Your task to perform on an android device: turn off smart reply in the gmail app Image 0: 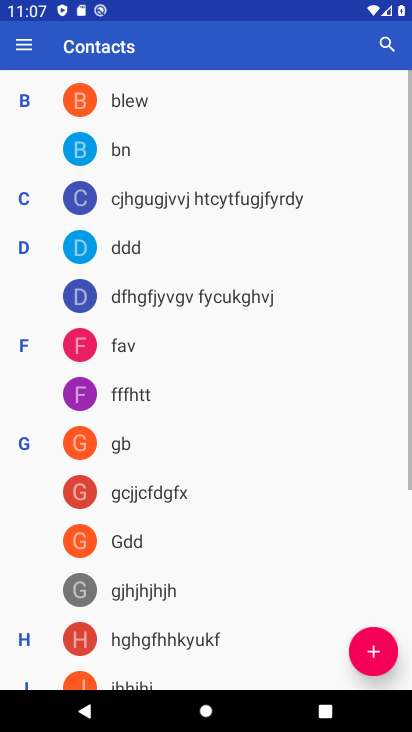
Step 0: drag from (373, 603) to (284, 167)
Your task to perform on an android device: turn off smart reply in the gmail app Image 1: 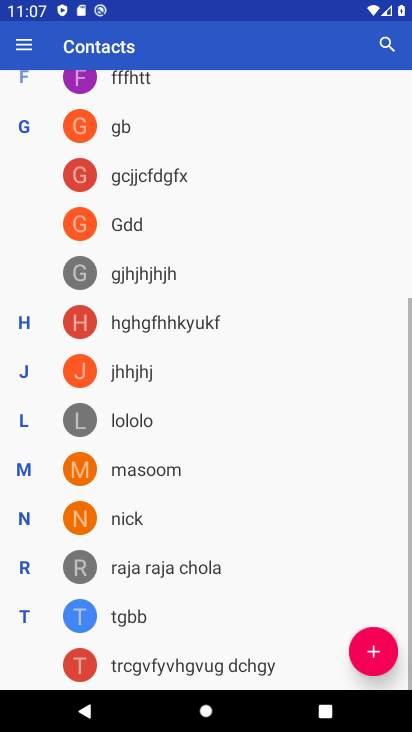
Step 1: press home button
Your task to perform on an android device: turn off smart reply in the gmail app Image 2: 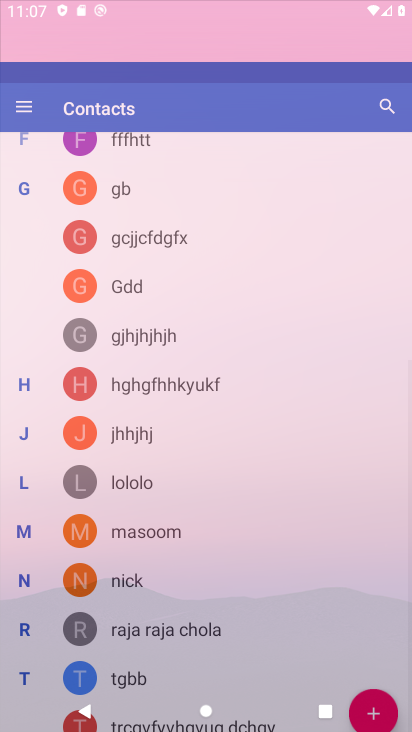
Step 2: drag from (350, 644) to (202, 60)
Your task to perform on an android device: turn off smart reply in the gmail app Image 3: 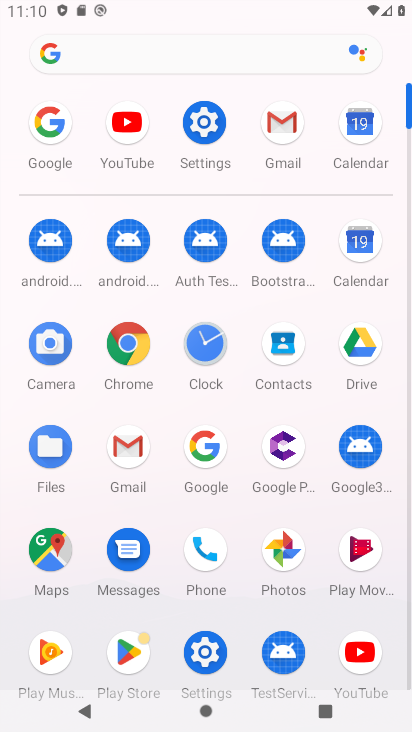
Step 3: click (134, 439)
Your task to perform on an android device: turn off smart reply in the gmail app Image 4: 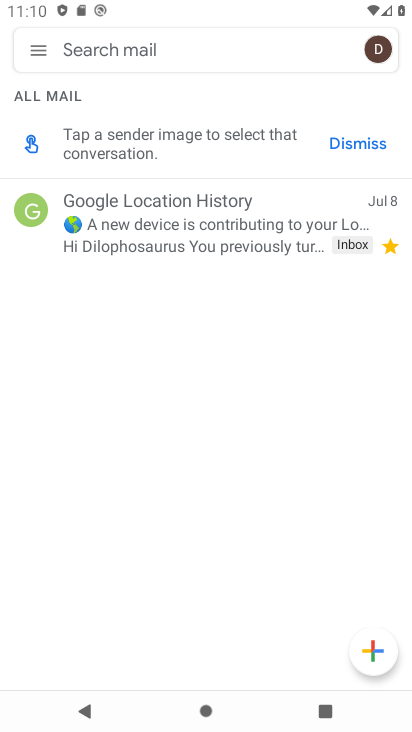
Step 4: click (39, 56)
Your task to perform on an android device: turn off smart reply in the gmail app Image 5: 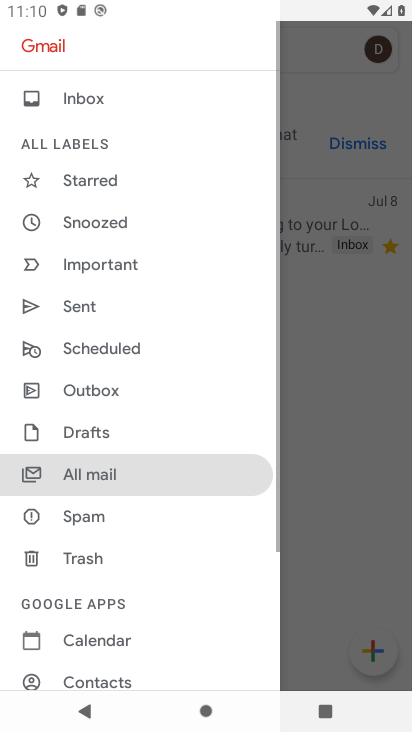
Step 5: drag from (101, 687) to (139, 159)
Your task to perform on an android device: turn off smart reply in the gmail app Image 6: 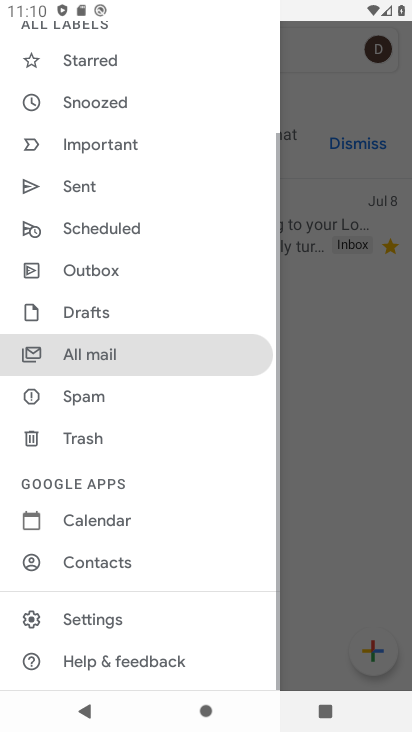
Step 6: click (106, 611)
Your task to perform on an android device: turn off smart reply in the gmail app Image 7: 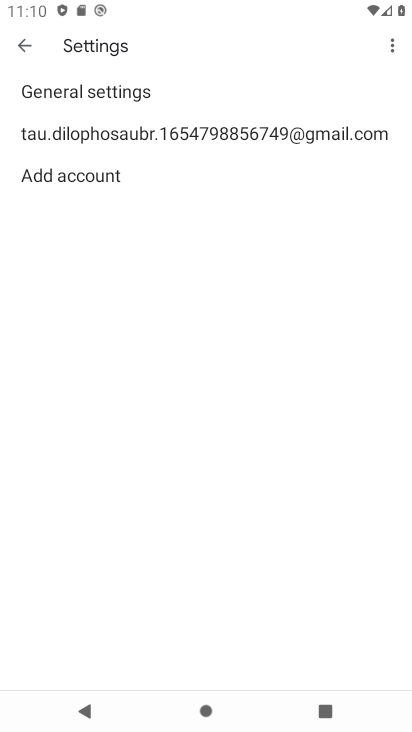
Step 7: click (139, 140)
Your task to perform on an android device: turn off smart reply in the gmail app Image 8: 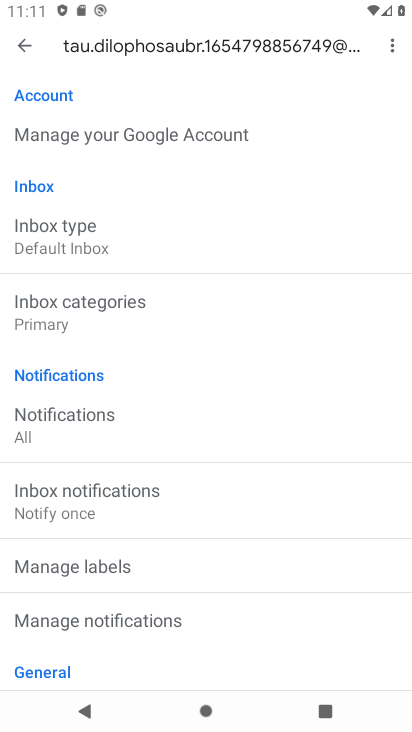
Step 8: drag from (170, 642) to (226, 20)
Your task to perform on an android device: turn off smart reply in the gmail app Image 9: 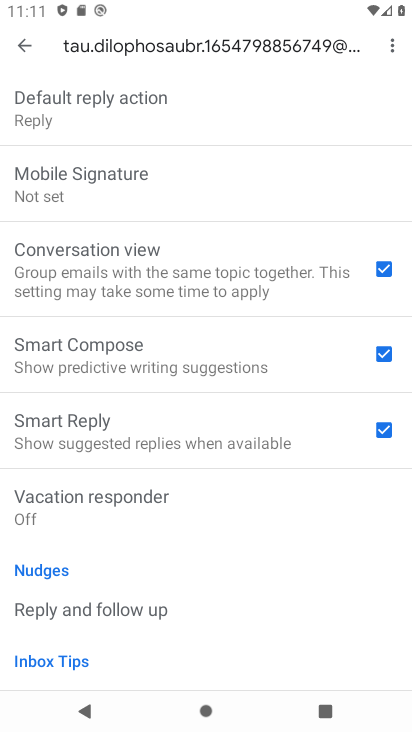
Step 9: click (268, 425)
Your task to perform on an android device: turn off smart reply in the gmail app Image 10: 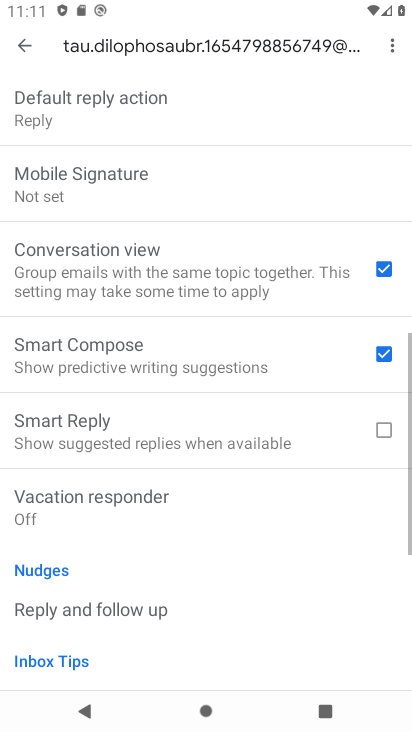
Step 10: task complete